Your task to perform on an android device: Open Yahoo.com Image 0: 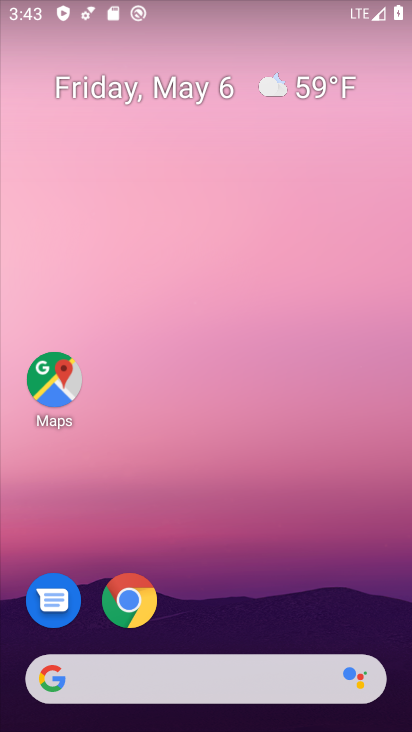
Step 0: click (140, 603)
Your task to perform on an android device: Open Yahoo.com Image 1: 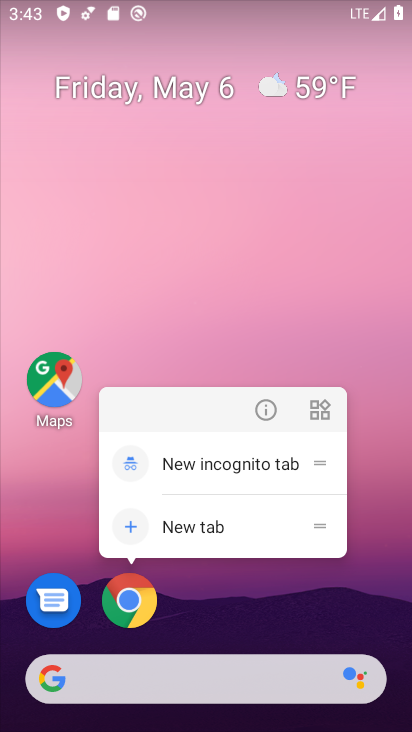
Step 1: click (140, 598)
Your task to perform on an android device: Open Yahoo.com Image 2: 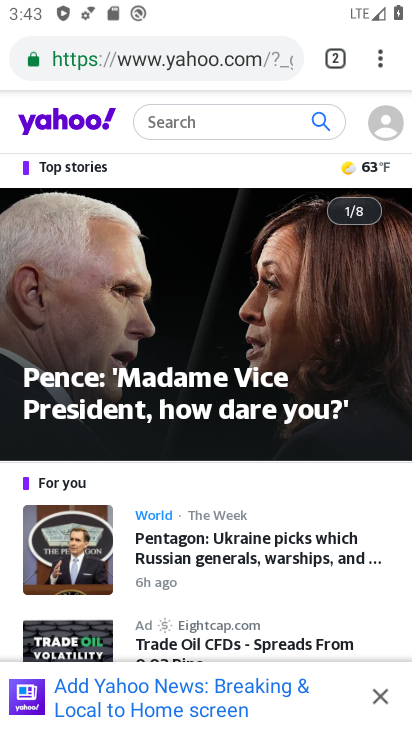
Step 2: task complete